Your task to perform on an android device: Open internet settings Image 0: 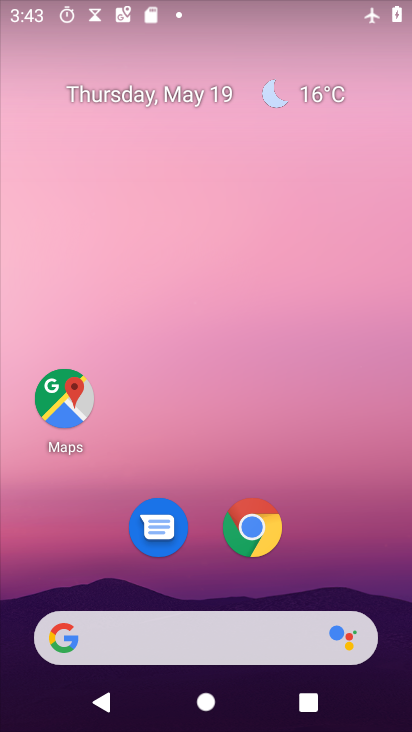
Step 0: drag from (349, 554) to (236, 46)
Your task to perform on an android device: Open internet settings Image 1: 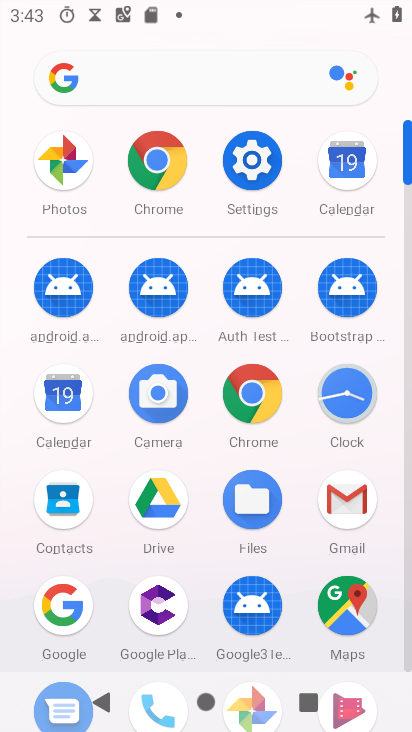
Step 1: click (251, 189)
Your task to perform on an android device: Open internet settings Image 2: 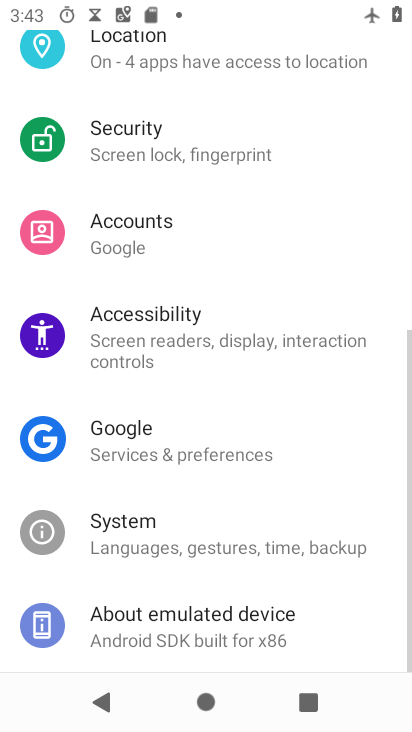
Step 2: drag from (272, 113) to (209, 577)
Your task to perform on an android device: Open internet settings Image 3: 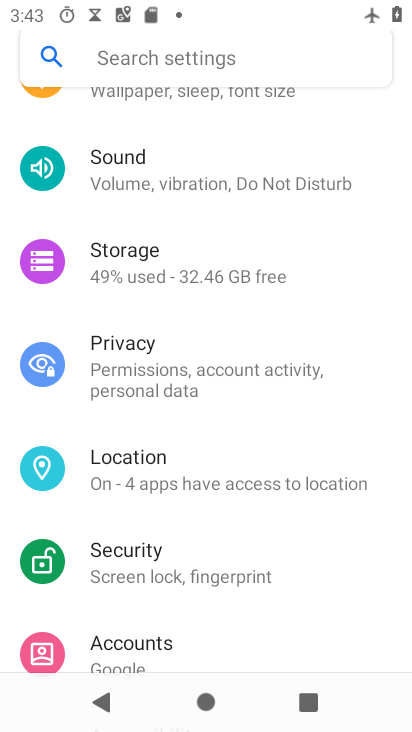
Step 3: drag from (228, 146) to (238, 598)
Your task to perform on an android device: Open internet settings Image 4: 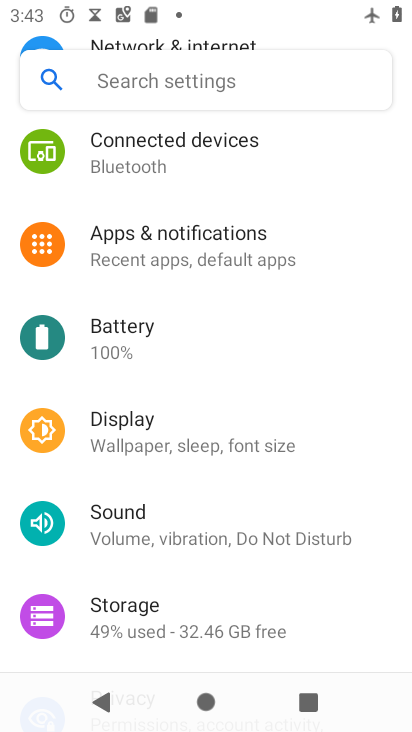
Step 4: drag from (218, 178) to (238, 615)
Your task to perform on an android device: Open internet settings Image 5: 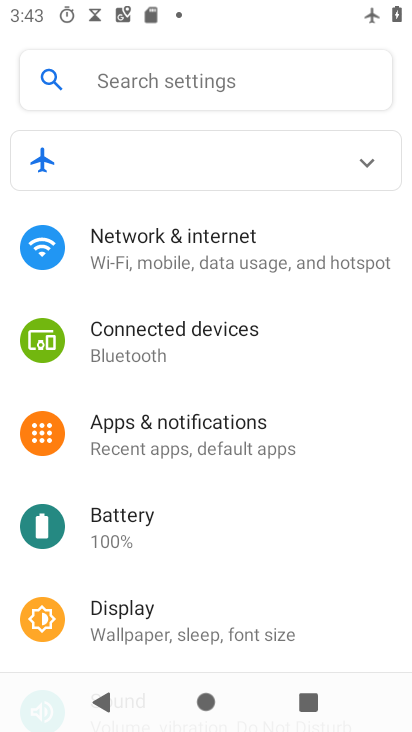
Step 5: drag from (224, 220) to (230, 589)
Your task to perform on an android device: Open internet settings Image 6: 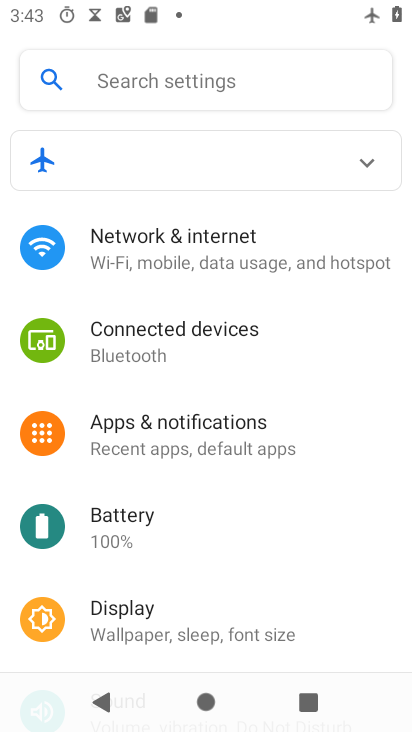
Step 6: click (204, 258)
Your task to perform on an android device: Open internet settings Image 7: 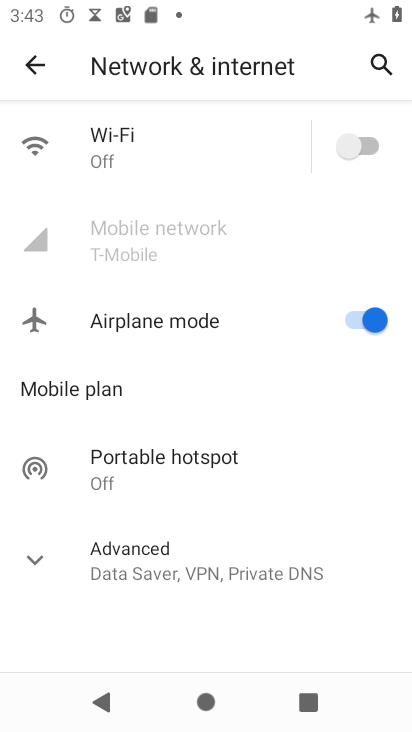
Step 7: task complete